Your task to perform on an android device: Show me popular games on the Play Store Image 0: 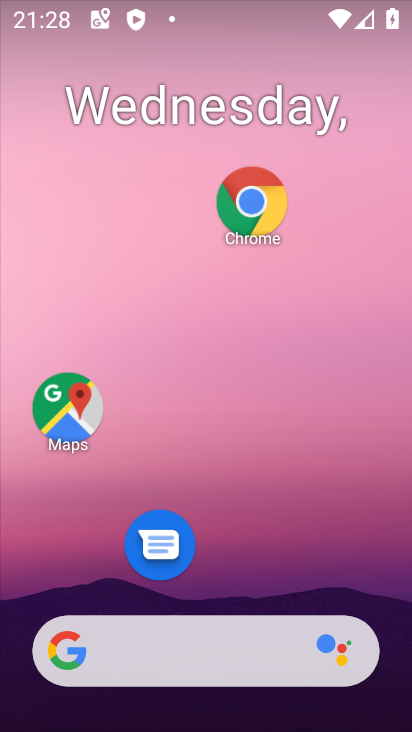
Step 0: drag from (255, 590) to (249, 98)
Your task to perform on an android device: Show me popular games on the Play Store Image 1: 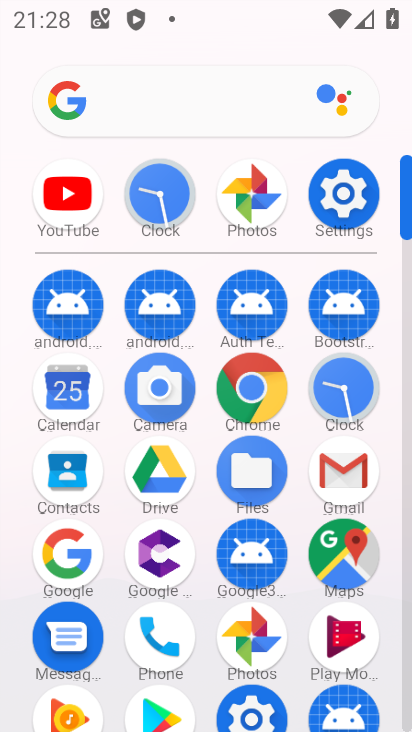
Step 1: click (158, 702)
Your task to perform on an android device: Show me popular games on the Play Store Image 2: 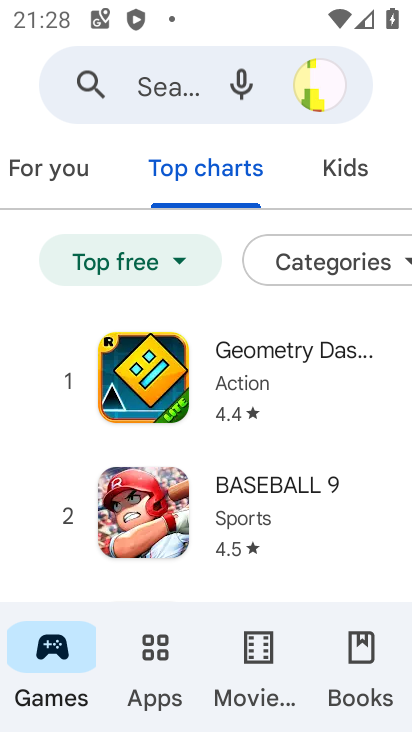
Step 2: task complete